Your task to perform on an android device: visit the assistant section in the google photos Image 0: 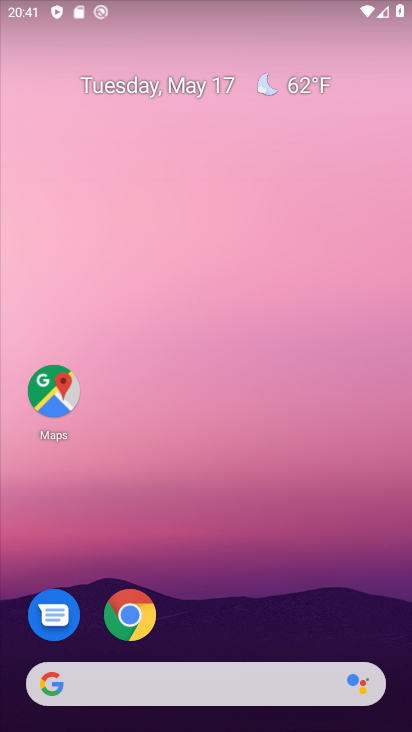
Step 0: drag from (259, 592) to (405, 23)
Your task to perform on an android device: visit the assistant section in the google photos Image 1: 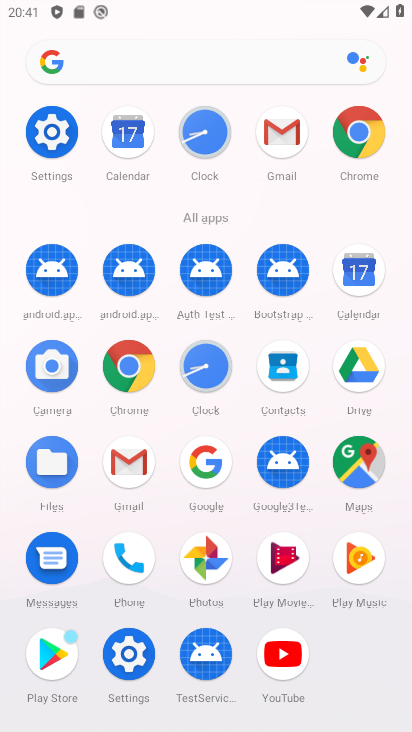
Step 1: click (203, 549)
Your task to perform on an android device: visit the assistant section in the google photos Image 2: 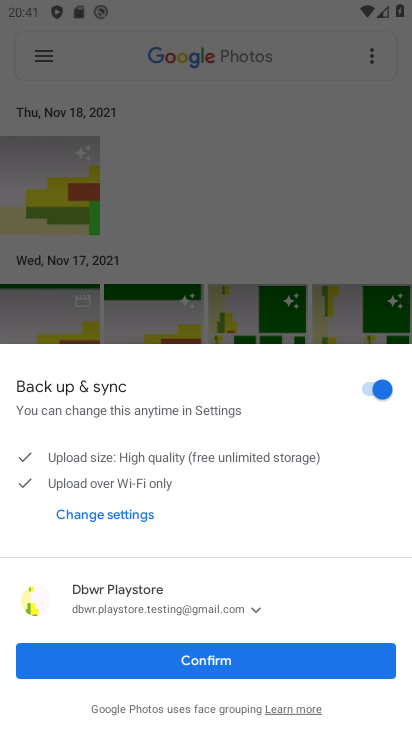
Step 2: click (280, 667)
Your task to perform on an android device: visit the assistant section in the google photos Image 3: 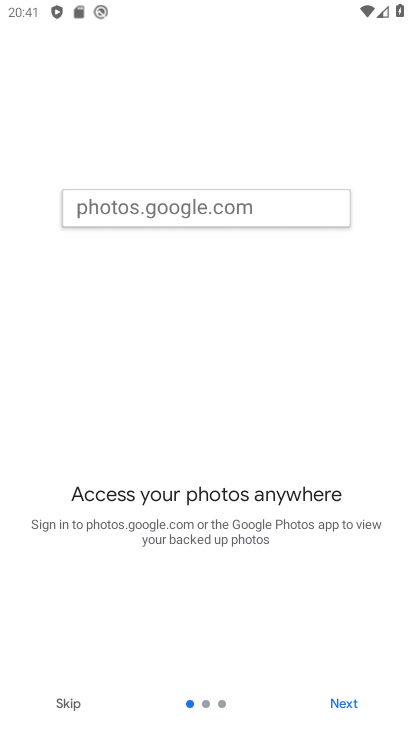
Step 3: click (348, 707)
Your task to perform on an android device: visit the assistant section in the google photos Image 4: 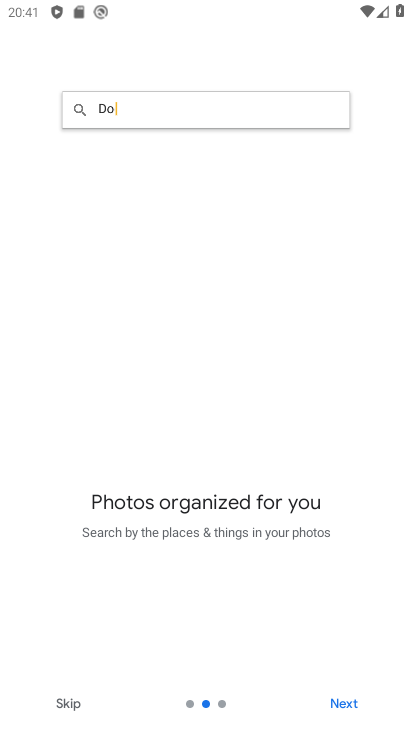
Step 4: click (348, 707)
Your task to perform on an android device: visit the assistant section in the google photos Image 5: 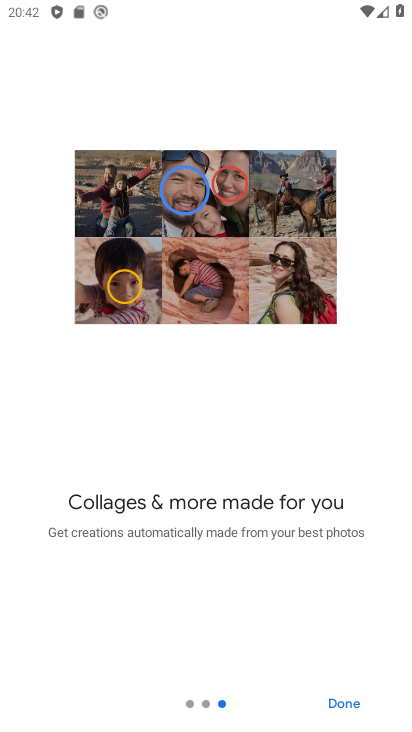
Step 5: click (348, 707)
Your task to perform on an android device: visit the assistant section in the google photos Image 6: 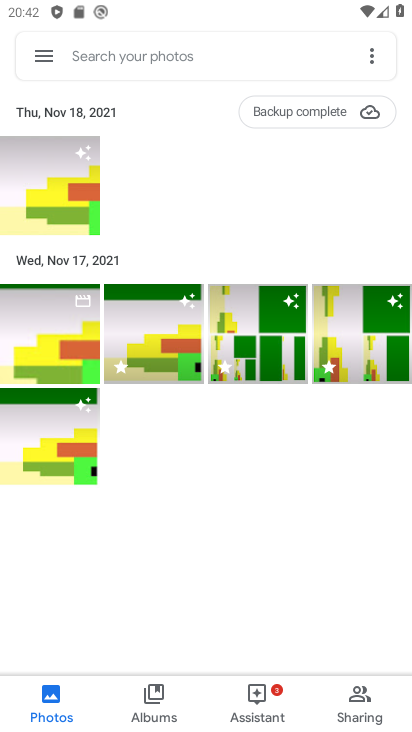
Step 6: click (262, 703)
Your task to perform on an android device: visit the assistant section in the google photos Image 7: 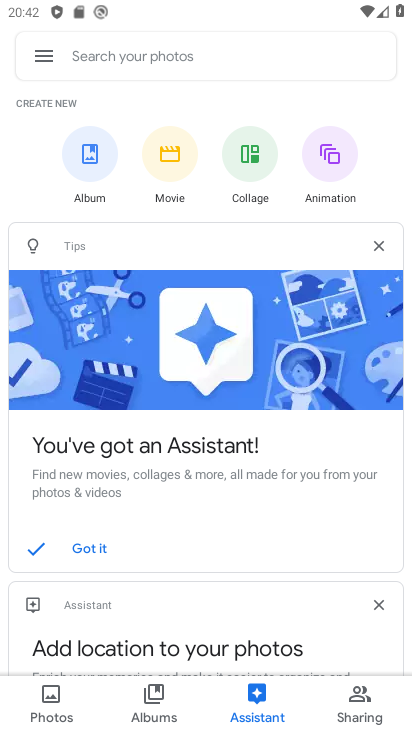
Step 7: task complete